Your task to perform on an android device: open chrome privacy settings Image 0: 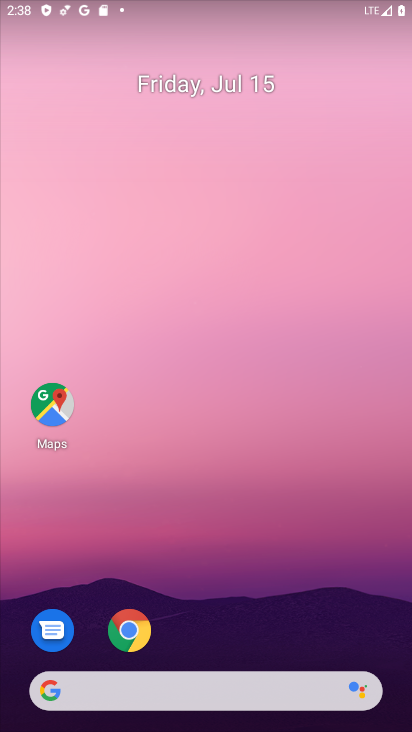
Step 0: click (120, 626)
Your task to perform on an android device: open chrome privacy settings Image 1: 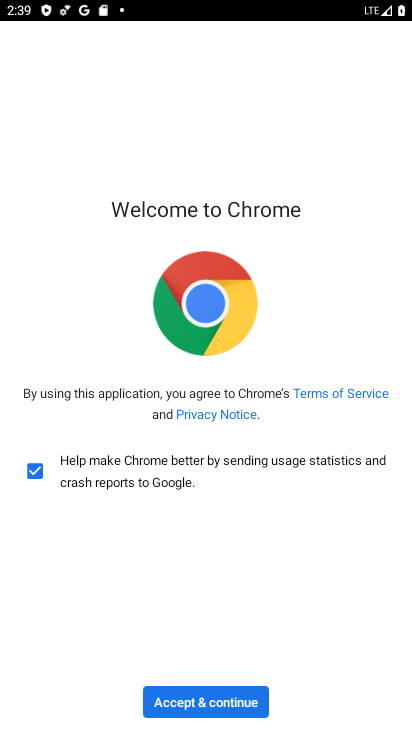
Step 1: click (167, 709)
Your task to perform on an android device: open chrome privacy settings Image 2: 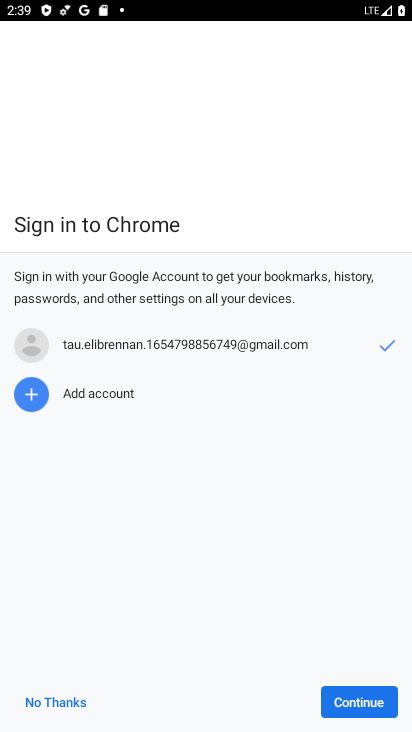
Step 2: click (342, 698)
Your task to perform on an android device: open chrome privacy settings Image 3: 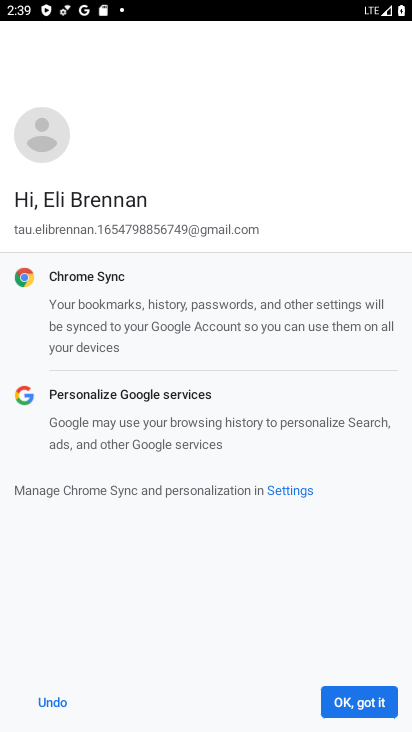
Step 3: click (349, 713)
Your task to perform on an android device: open chrome privacy settings Image 4: 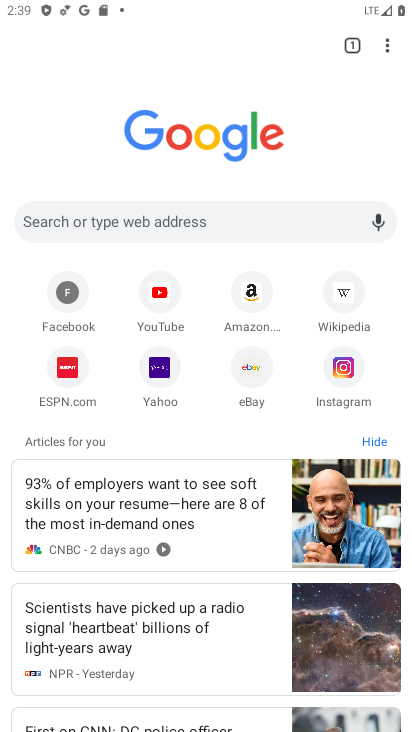
Step 4: drag from (388, 43) to (226, 389)
Your task to perform on an android device: open chrome privacy settings Image 5: 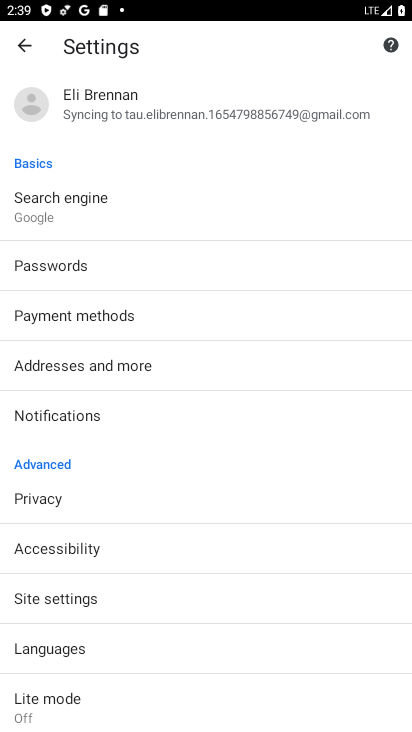
Step 5: click (67, 505)
Your task to perform on an android device: open chrome privacy settings Image 6: 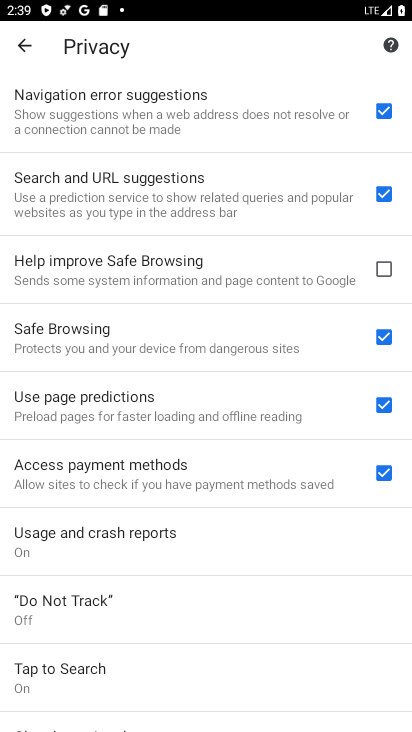
Step 6: task complete